Your task to perform on an android device: turn smart compose on in the gmail app Image 0: 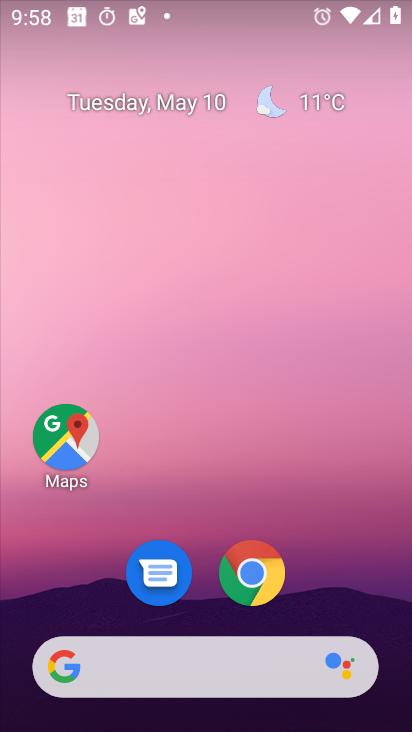
Step 0: drag from (351, 590) to (318, 13)
Your task to perform on an android device: turn smart compose on in the gmail app Image 1: 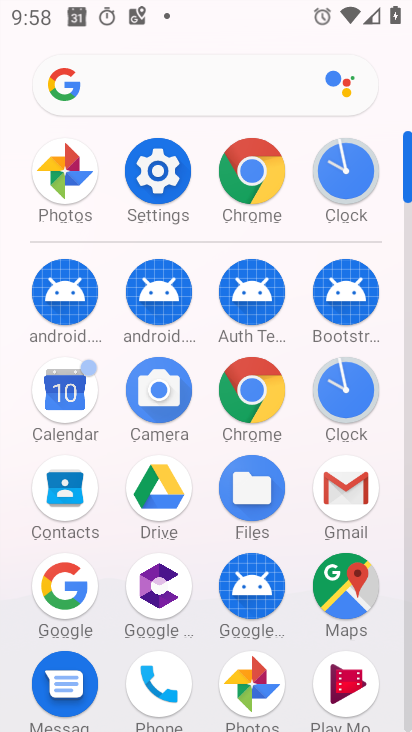
Step 1: click (352, 509)
Your task to perform on an android device: turn smart compose on in the gmail app Image 2: 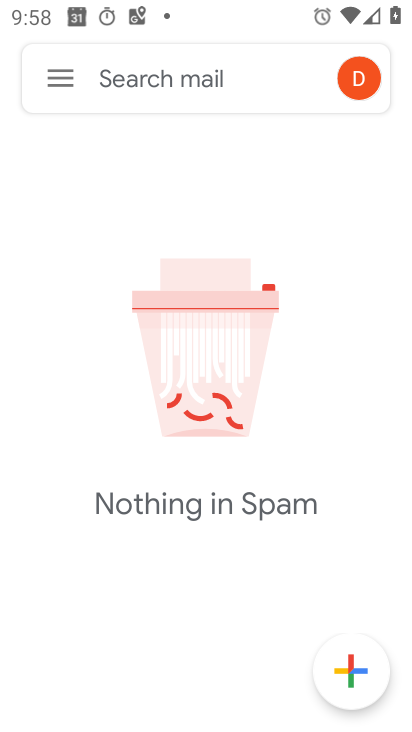
Step 2: click (48, 82)
Your task to perform on an android device: turn smart compose on in the gmail app Image 3: 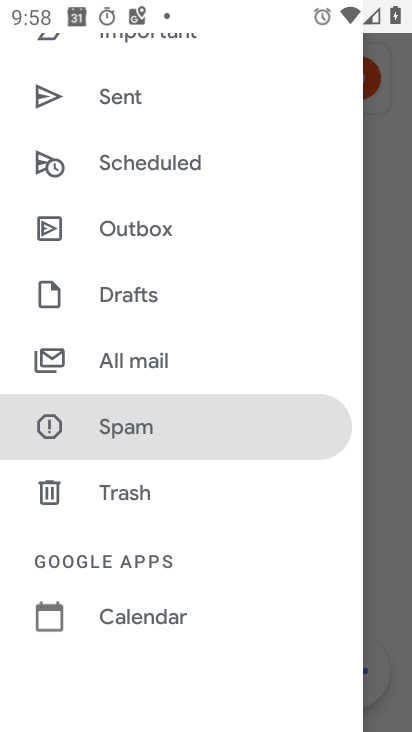
Step 3: drag from (276, 612) to (242, 273)
Your task to perform on an android device: turn smart compose on in the gmail app Image 4: 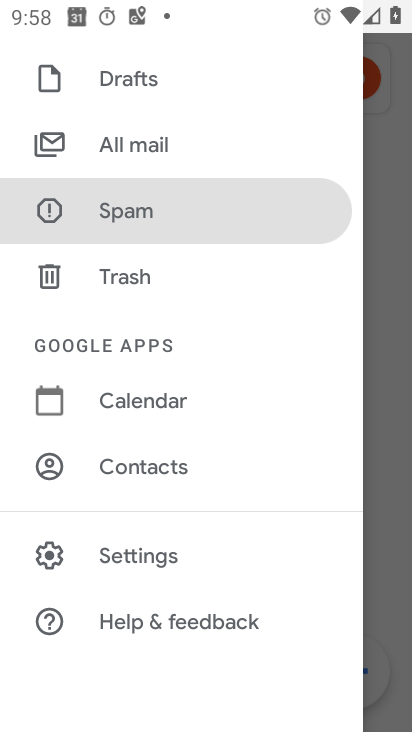
Step 4: click (126, 573)
Your task to perform on an android device: turn smart compose on in the gmail app Image 5: 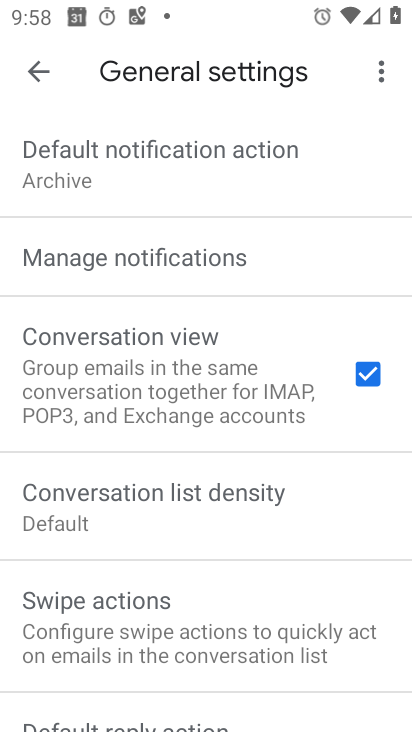
Step 5: click (33, 82)
Your task to perform on an android device: turn smart compose on in the gmail app Image 6: 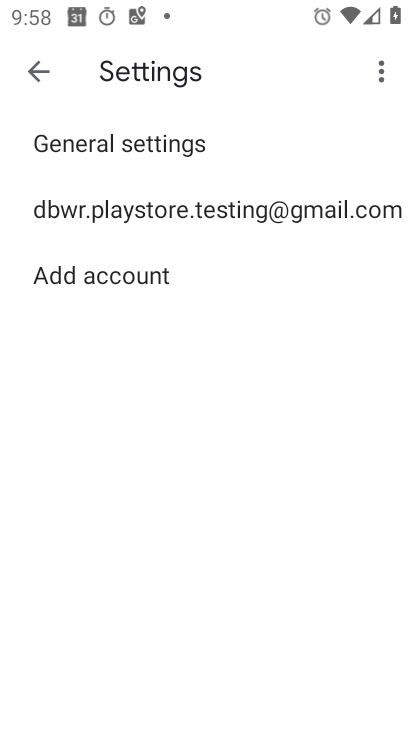
Step 6: click (100, 210)
Your task to perform on an android device: turn smart compose on in the gmail app Image 7: 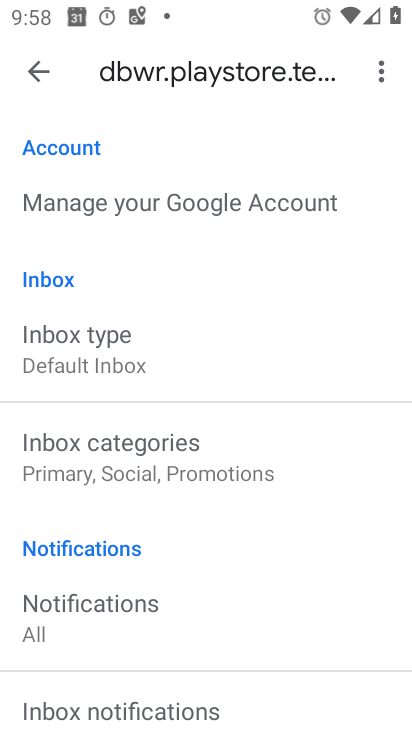
Step 7: task complete